Your task to perform on an android device: turn on the 12-hour format for clock Image 0: 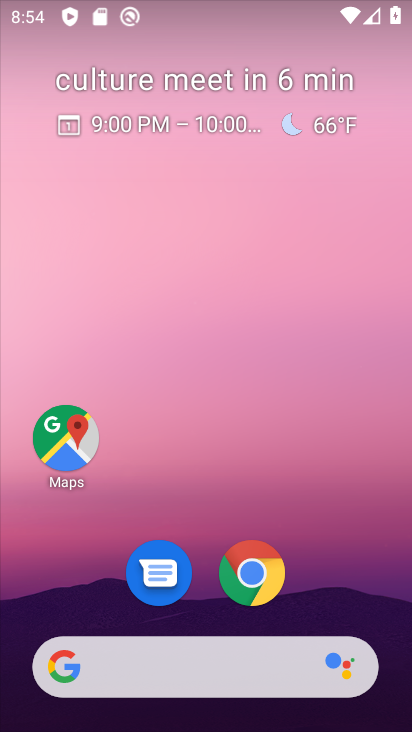
Step 0: drag from (205, 618) to (222, 59)
Your task to perform on an android device: turn on the 12-hour format for clock Image 1: 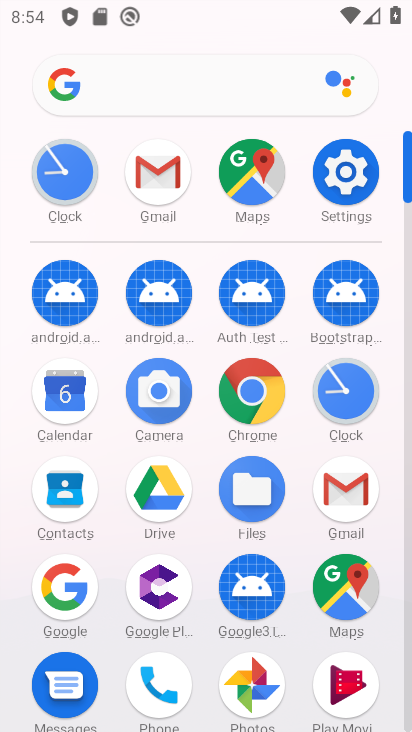
Step 1: click (72, 169)
Your task to perform on an android device: turn on the 12-hour format for clock Image 2: 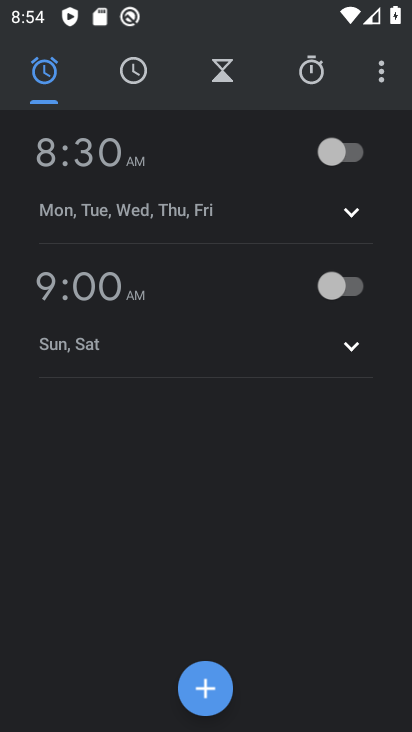
Step 2: click (379, 60)
Your task to perform on an android device: turn on the 12-hour format for clock Image 3: 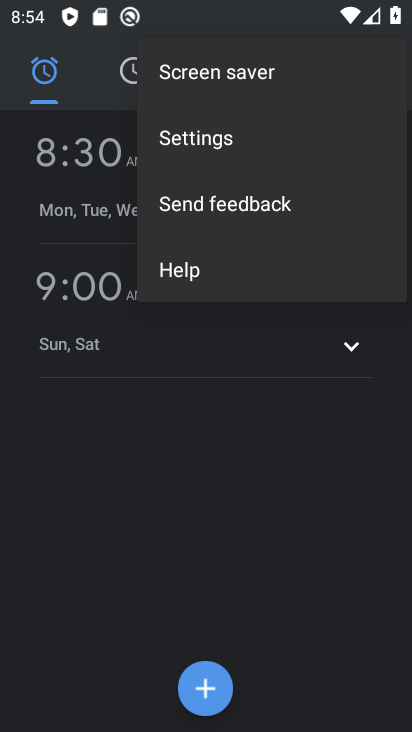
Step 3: click (229, 135)
Your task to perform on an android device: turn on the 12-hour format for clock Image 4: 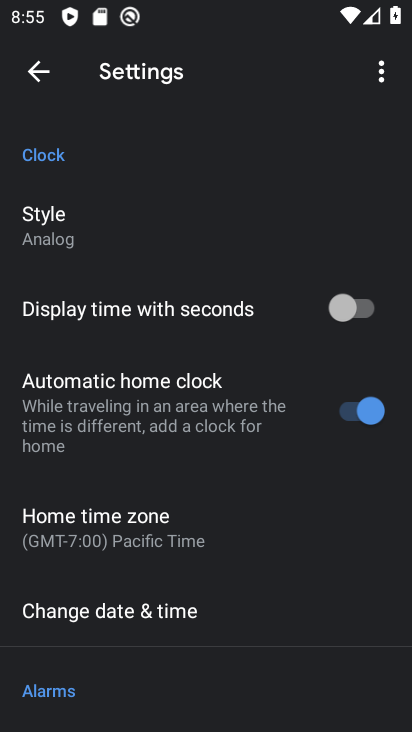
Step 4: click (118, 606)
Your task to perform on an android device: turn on the 12-hour format for clock Image 5: 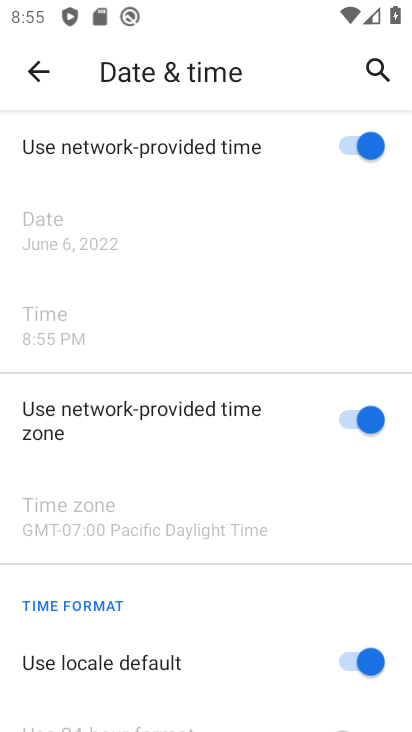
Step 5: task complete